Your task to perform on an android device: open app "Google Calendar" (install if not already installed) Image 0: 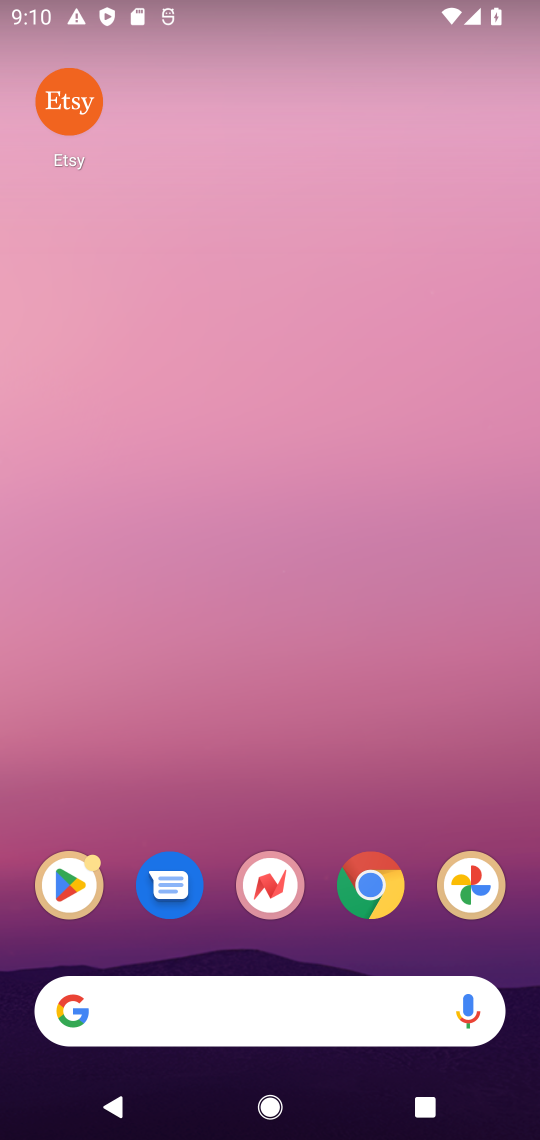
Step 0: click (63, 864)
Your task to perform on an android device: open app "Google Calendar" (install if not already installed) Image 1: 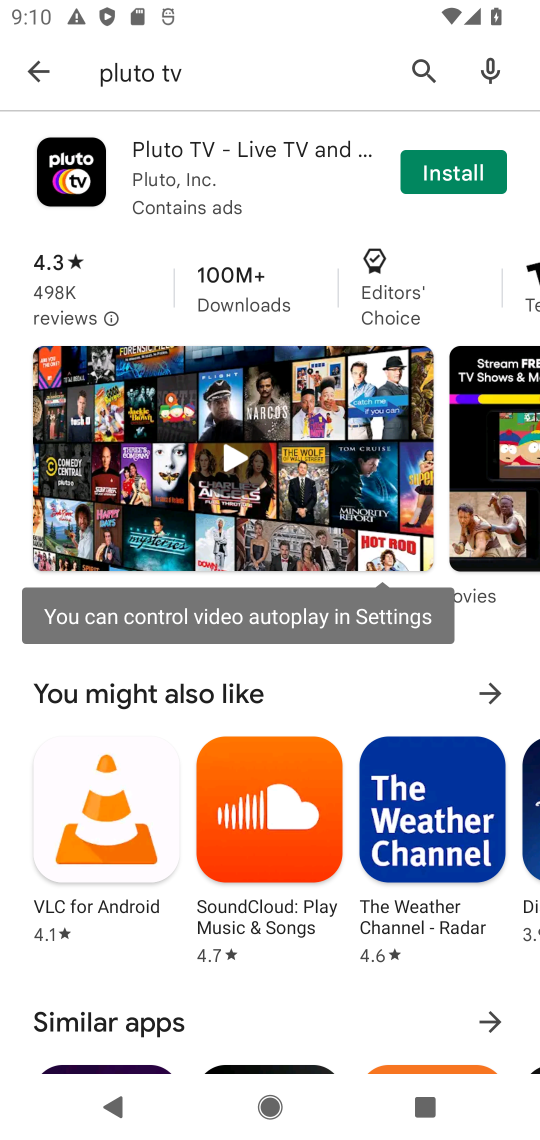
Step 1: click (255, 77)
Your task to perform on an android device: open app "Google Calendar" (install if not already installed) Image 2: 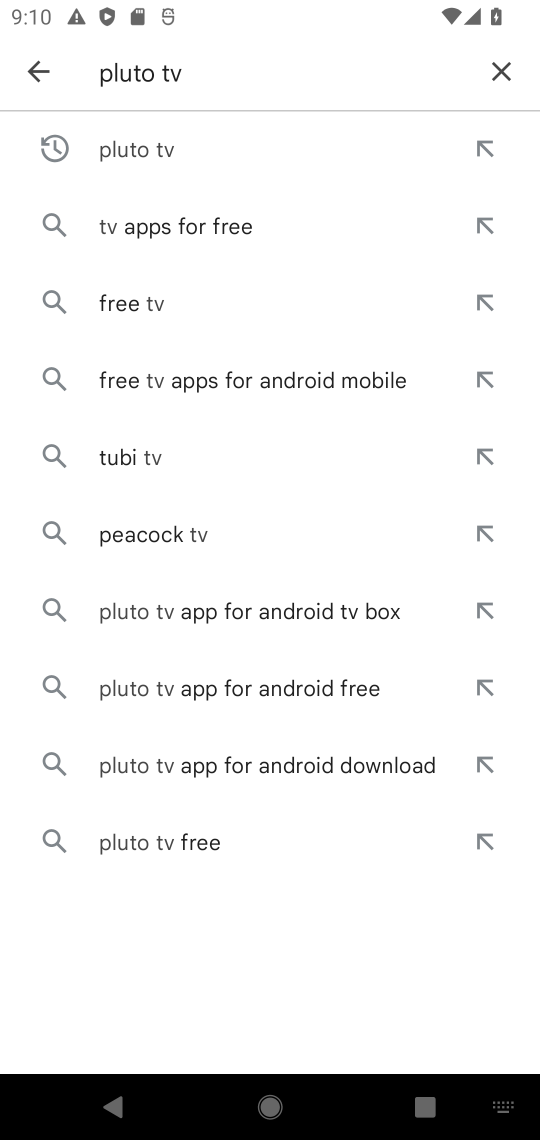
Step 2: click (505, 69)
Your task to perform on an android device: open app "Google Calendar" (install if not already installed) Image 3: 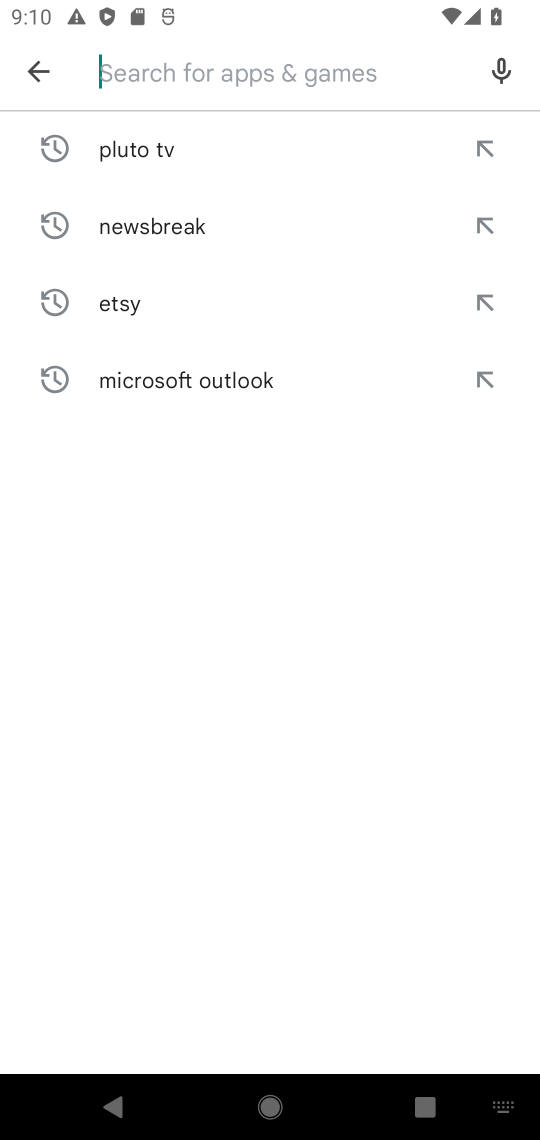
Step 3: type "google calender"
Your task to perform on an android device: open app "Google Calendar" (install if not already installed) Image 4: 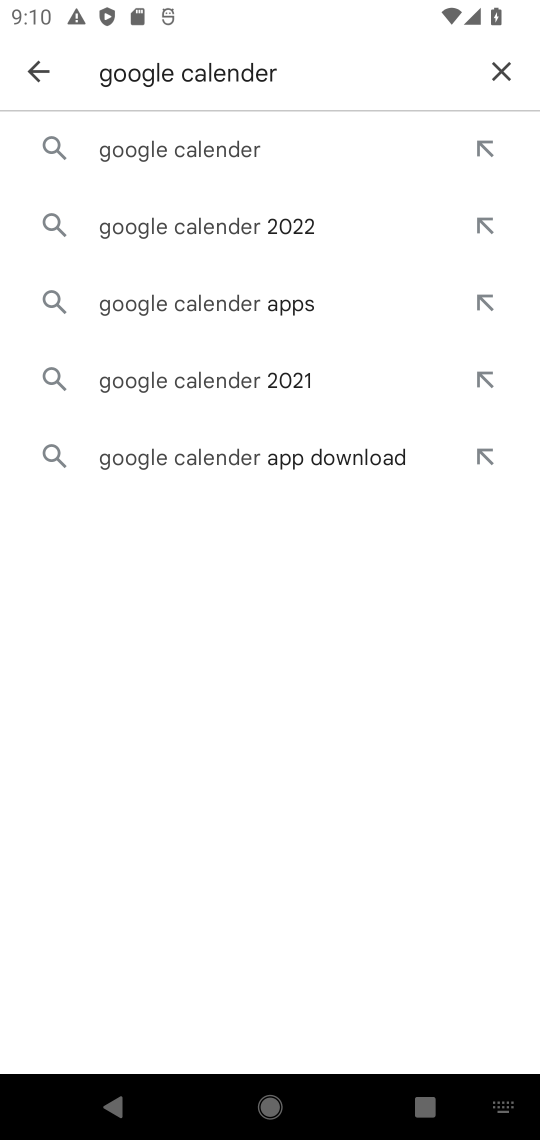
Step 4: click (158, 141)
Your task to perform on an android device: open app "Google Calendar" (install if not already installed) Image 5: 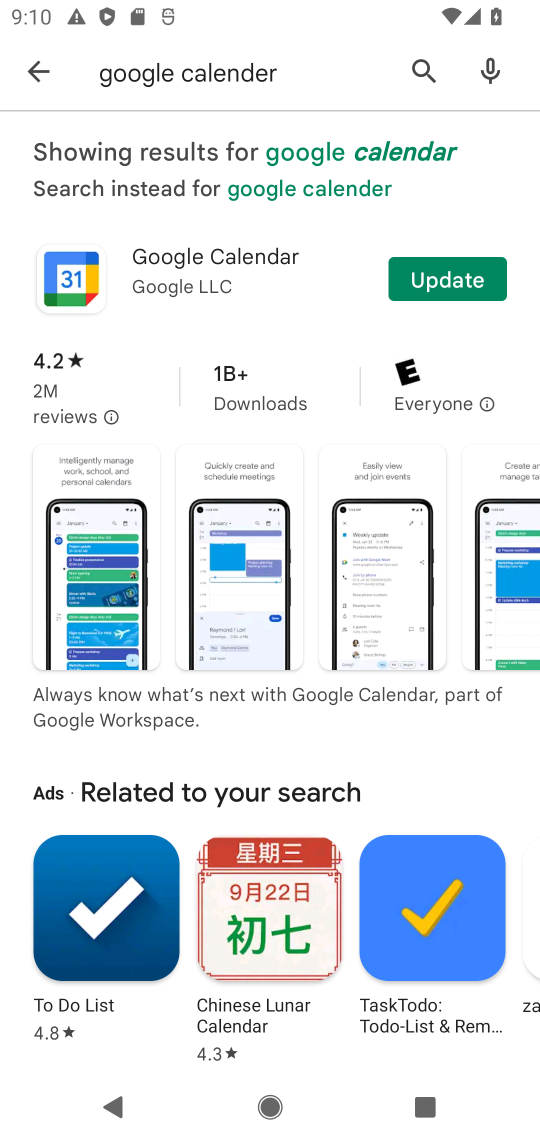
Step 5: click (478, 291)
Your task to perform on an android device: open app "Google Calendar" (install if not already installed) Image 6: 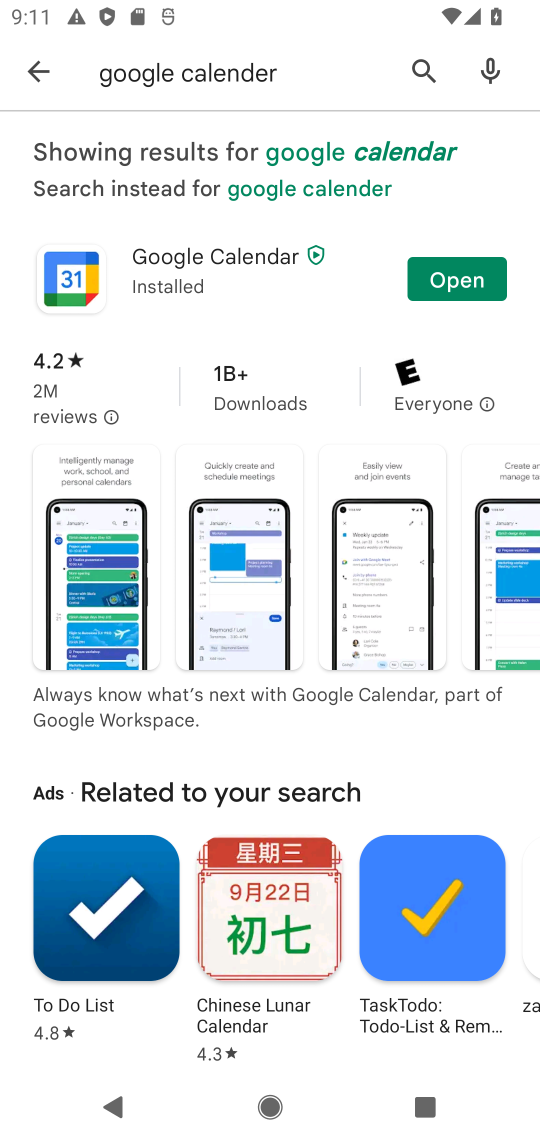
Step 6: click (455, 289)
Your task to perform on an android device: open app "Google Calendar" (install if not already installed) Image 7: 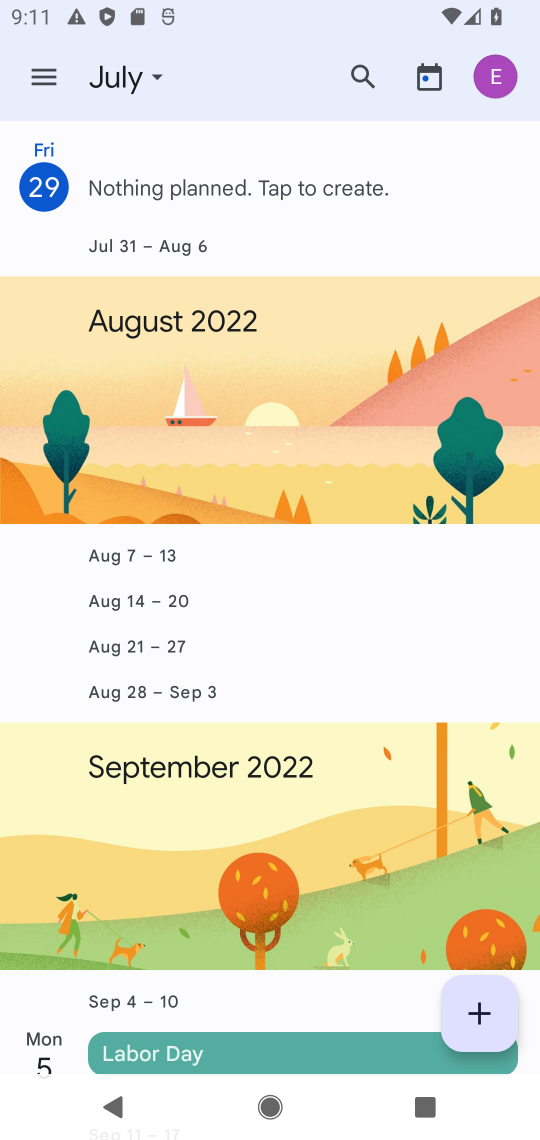
Step 7: task complete